Your task to perform on an android device: Open accessibility settings Image 0: 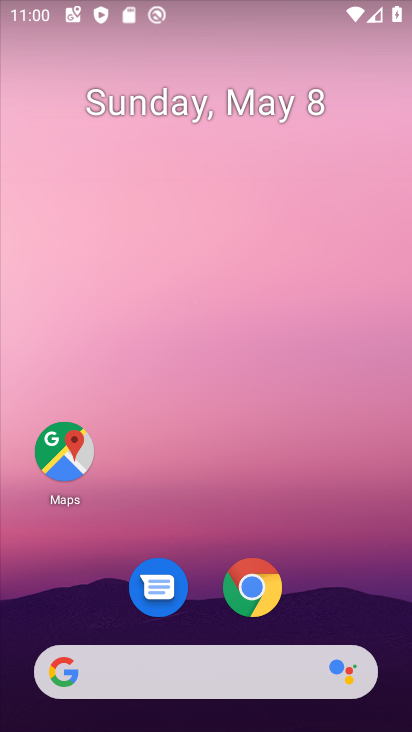
Step 0: click (117, 2)
Your task to perform on an android device: Open accessibility settings Image 1: 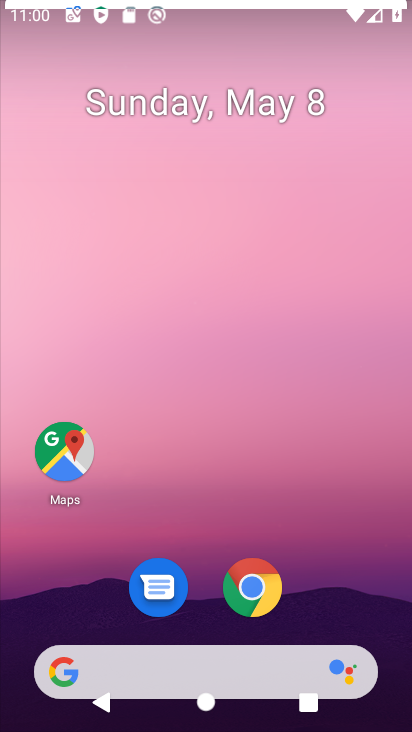
Step 1: drag from (332, 424) to (276, 103)
Your task to perform on an android device: Open accessibility settings Image 2: 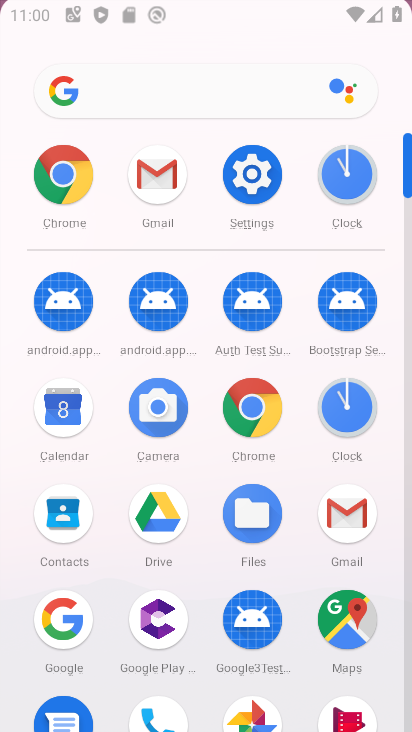
Step 2: drag from (236, 347) to (139, 80)
Your task to perform on an android device: Open accessibility settings Image 3: 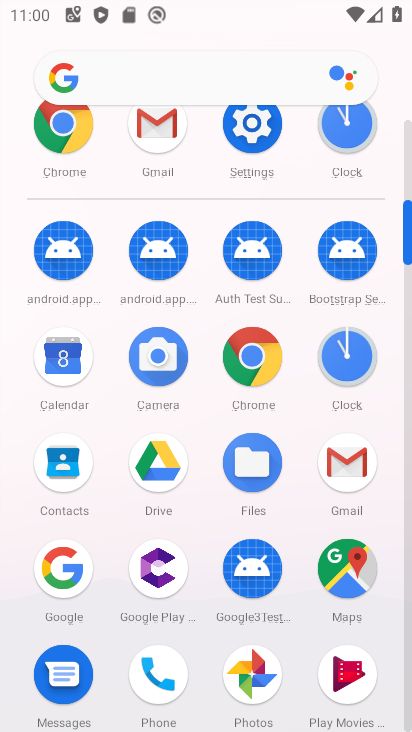
Step 3: click (259, 133)
Your task to perform on an android device: Open accessibility settings Image 4: 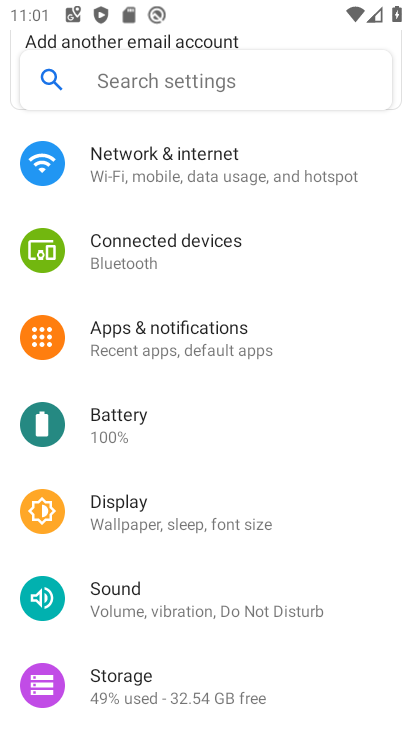
Step 4: click (127, 208)
Your task to perform on an android device: Open accessibility settings Image 5: 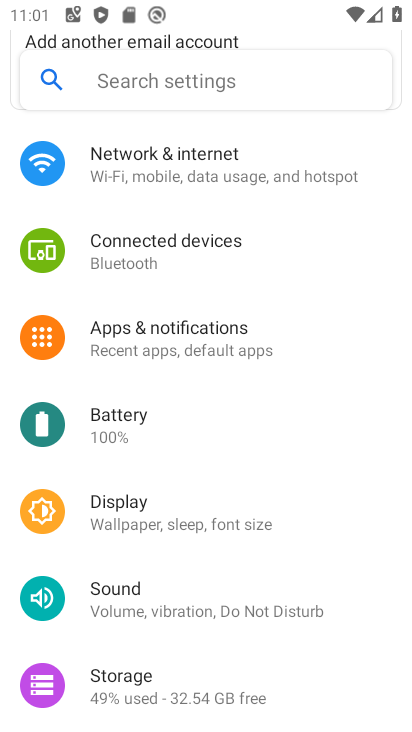
Step 5: drag from (184, 515) to (179, 178)
Your task to perform on an android device: Open accessibility settings Image 6: 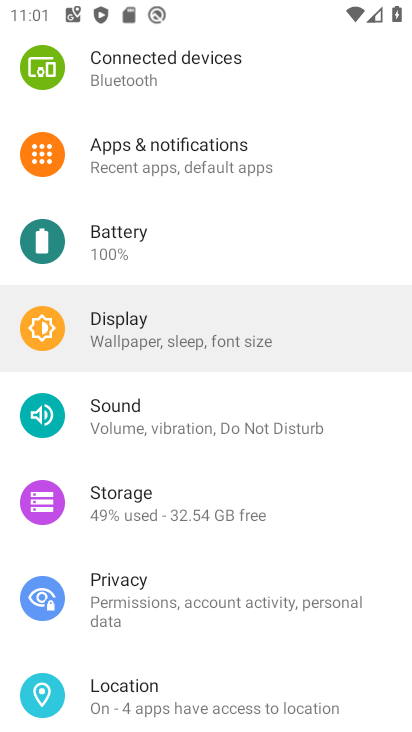
Step 6: drag from (211, 501) to (228, 98)
Your task to perform on an android device: Open accessibility settings Image 7: 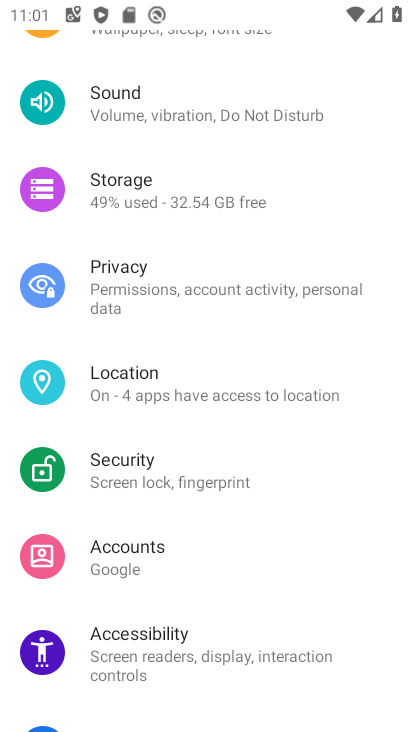
Step 7: drag from (228, 482) to (227, 128)
Your task to perform on an android device: Open accessibility settings Image 8: 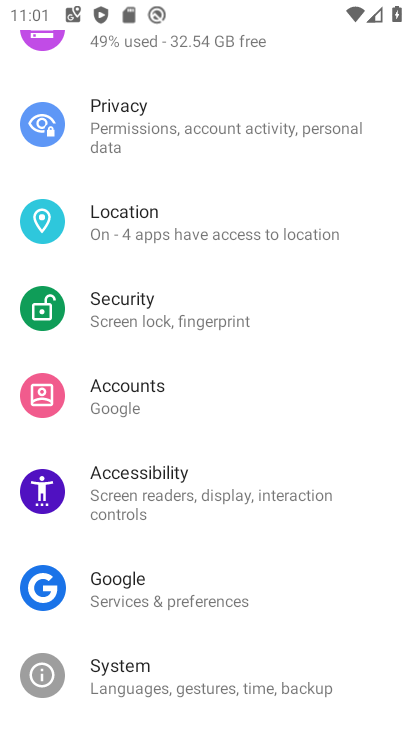
Step 8: drag from (248, 598) to (208, 230)
Your task to perform on an android device: Open accessibility settings Image 9: 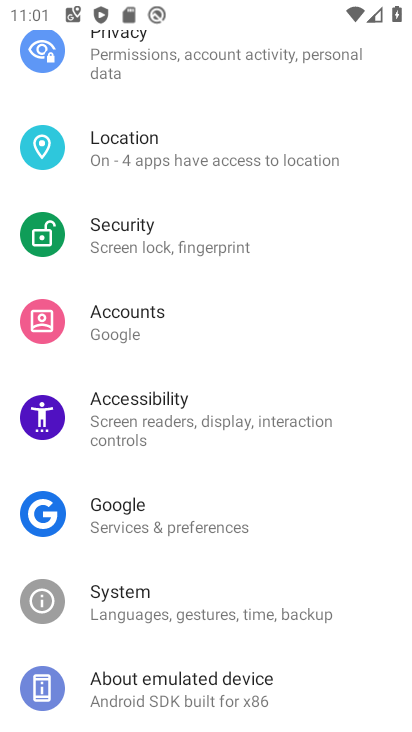
Step 9: click (114, 414)
Your task to perform on an android device: Open accessibility settings Image 10: 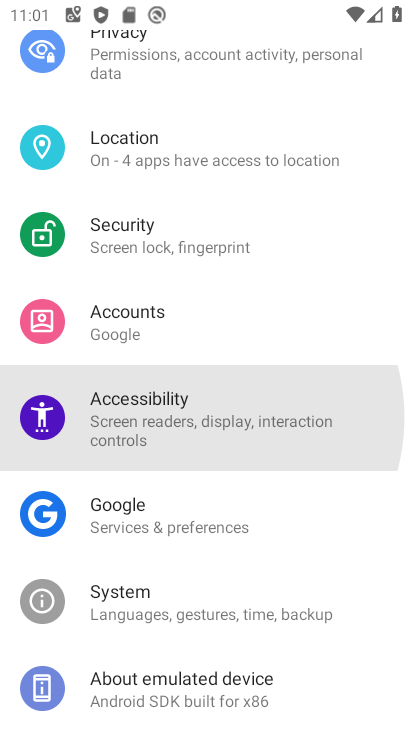
Step 10: click (114, 414)
Your task to perform on an android device: Open accessibility settings Image 11: 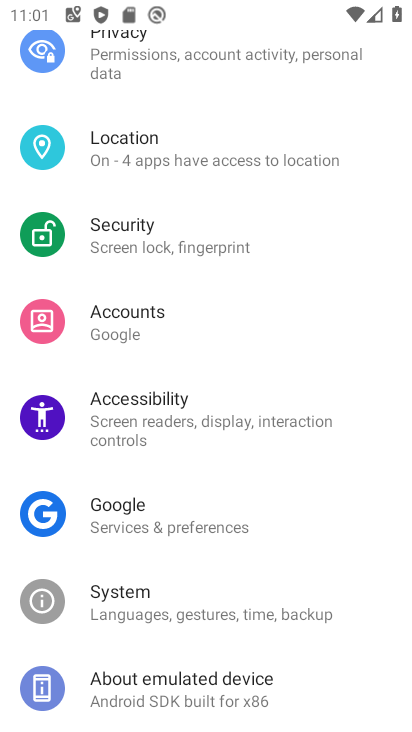
Step 11: click (114, 414)
Your task to perform on an android device: Open accessibility settings Image 12: 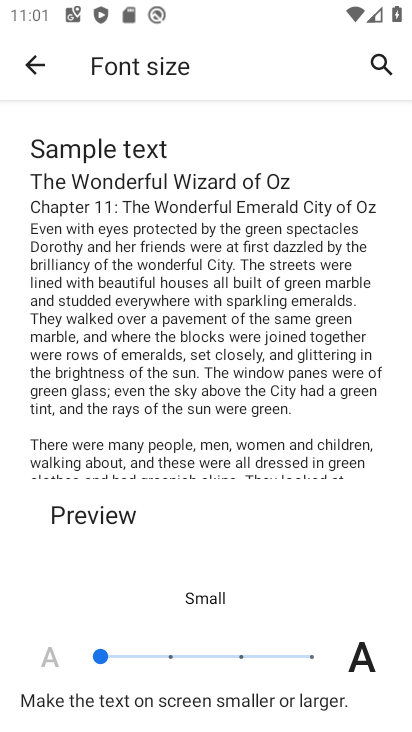
Step 12: click (29, 61)
Your task to perform on an android device: Open accessibility settings Image 13: 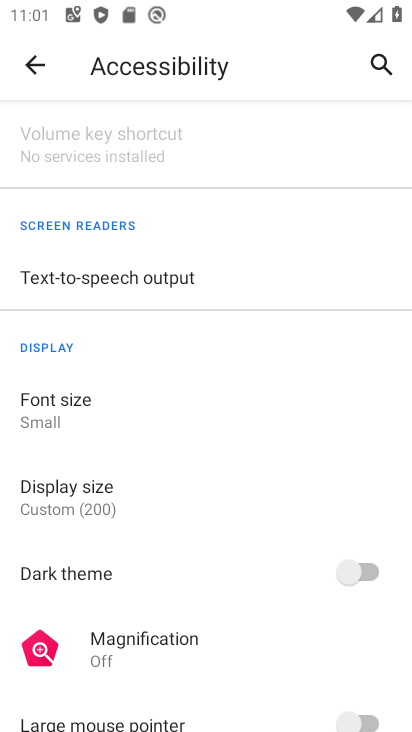
Step 13: task complete